Your task to perform on an android device: Open calendar and show me the fourth week of next month Image 0: 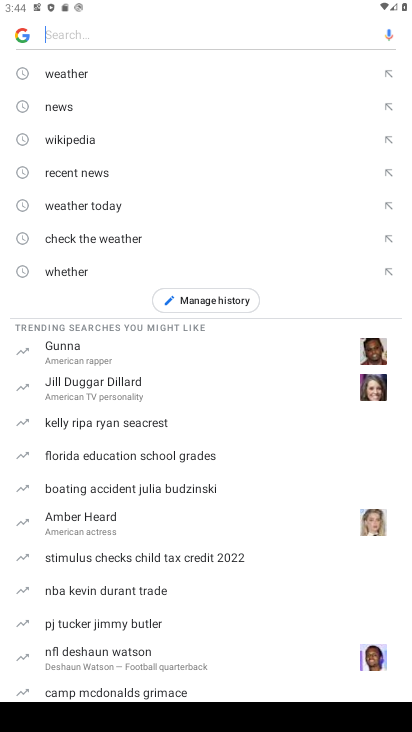
Step 0: press home button
Your task to perform on an android device: Open calendar and show me the fourth week of next month Image 1: 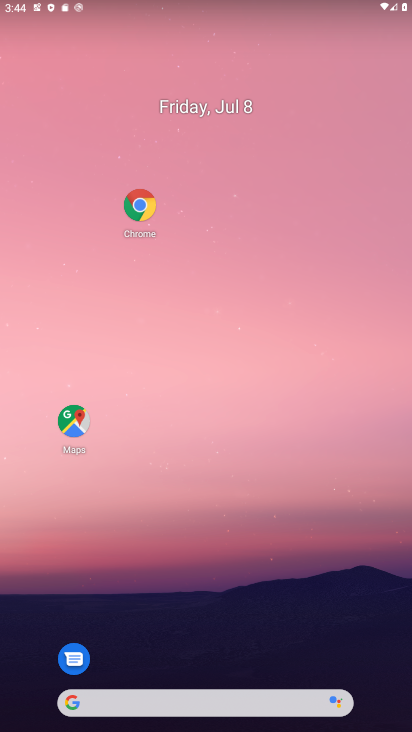
Step 1: drag from (184, 609) to (194, 200)
Your task to perform on an android device: Open calendar and show me the fourth week of next month Image 2: 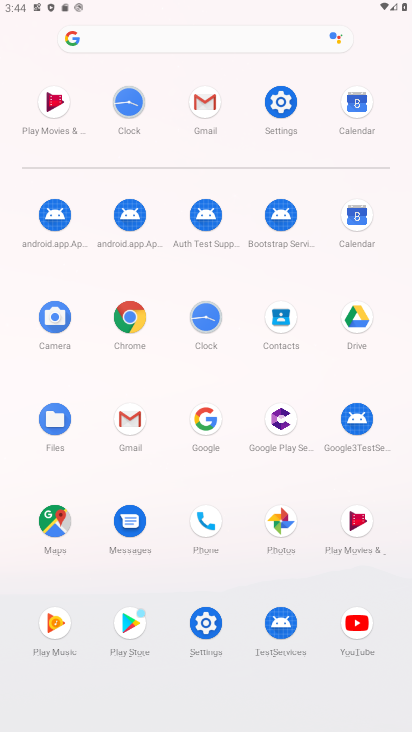
Step 2: click (343, 106)
Your task to perform on an android device: Open calendar and show me the fourth week of next month Image 3: 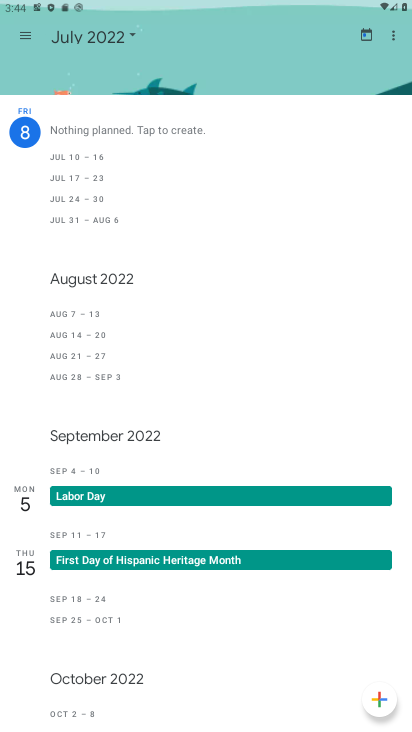
Step 3: click (124, 32)
Your task to perform on an android device: Open calendar and show me the fourth week of next month Image 4: 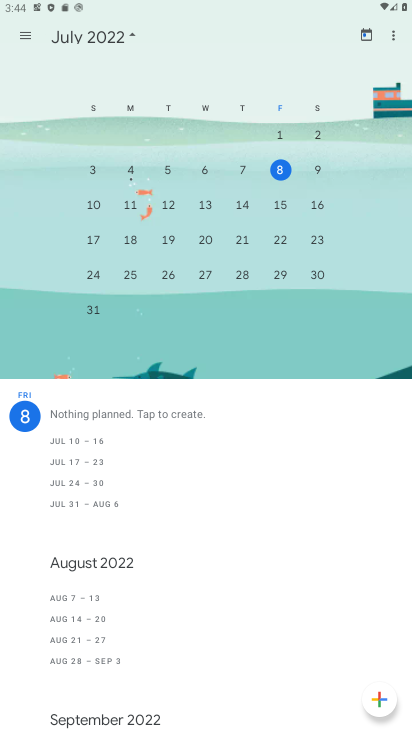
Step 4: drag from (365, 209) to (73, 199)
Your task to perform on an android device: Open calendar and show me the fourth week of next month Image 5: 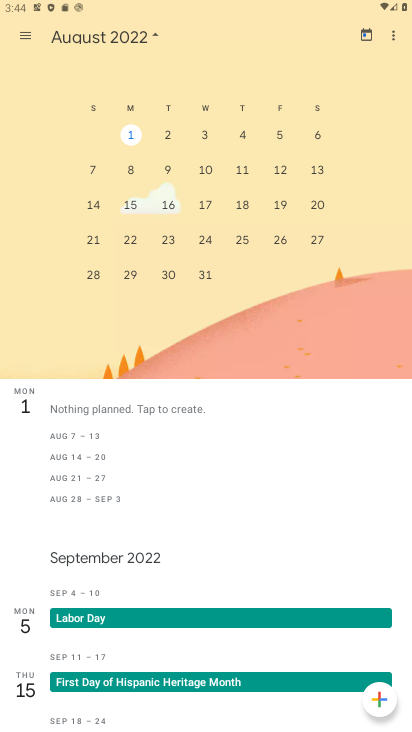
Step 5: click (98, 241)
Your task to perform on an android device: Open calendar and show me the fourth week of next month Image 6: 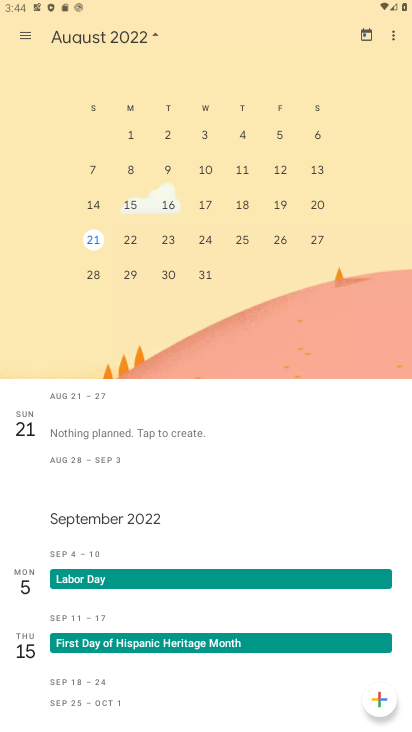
Step 6: click (134, 243)
Your task to perform on an android device: Open calendar and show me the fourth week of next month Image 7: 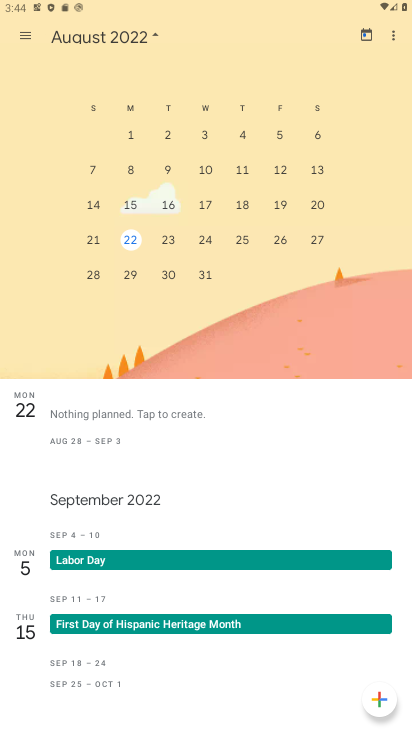
Step 7: task complete